Your task to perform on an android device: Open Google Chrome and open the bookmarks view Image 0: 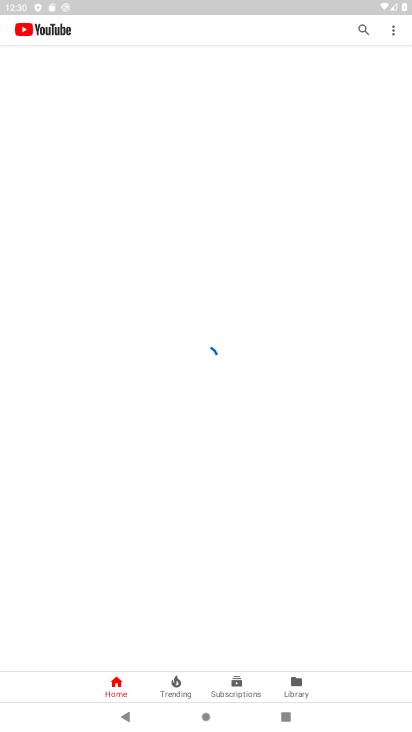
Step 0: drag from (335, 612) to (338, 193)
Your task to perform on an android device: Open Google Chrome and open the bookmarks view Image 1: 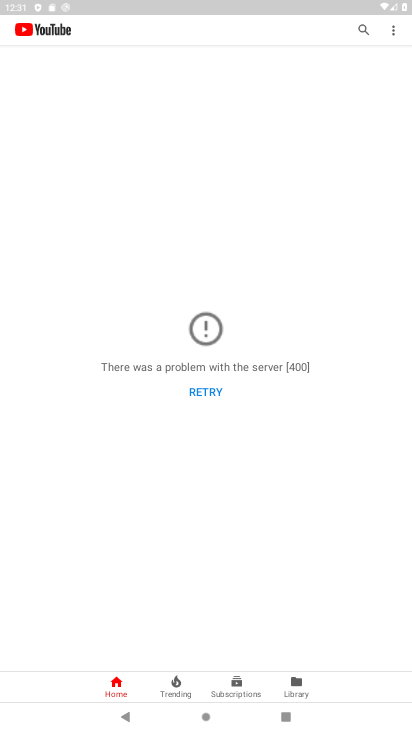
Step 1: press back button
Your task to perform on an android device: Open Google Chrome and open the bookmarks view Image 2: 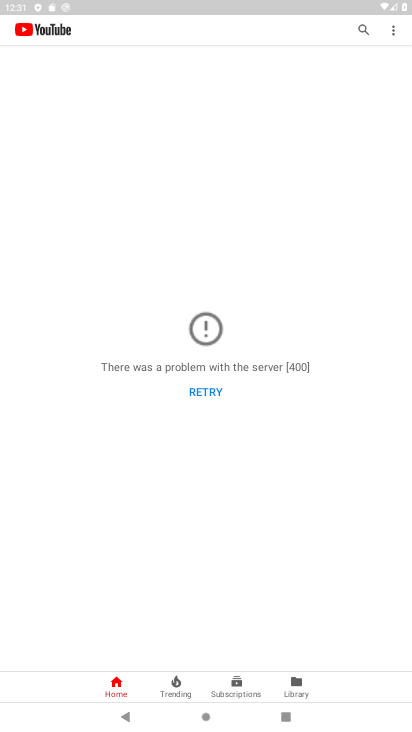
Step 2: press back button
Your task to perform on an android device: Open Google Chrome and open the bookmarks view Image 3: 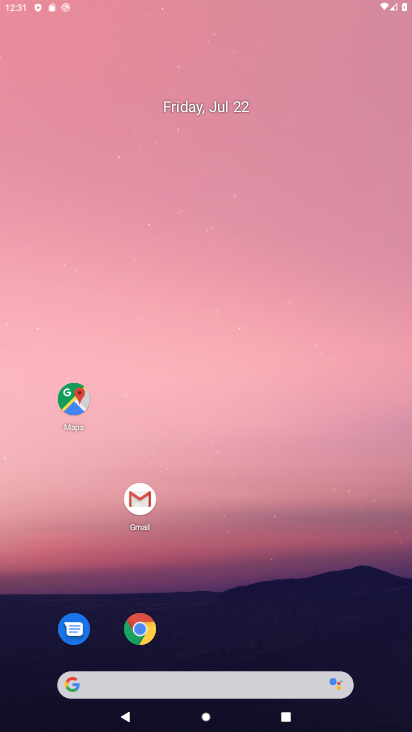
Step 3: press back button
Your task to perform on an android device: Open Google Chrome and open the bookmarks view Image 4: 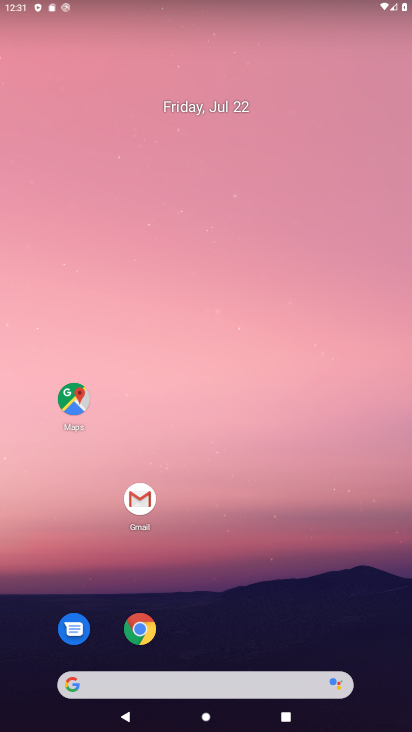
Step 4: drag from (259, 610) to (264, 0)
Your task to perform on an android device: Open Google Chrome and open the bookmarks view Image 5: 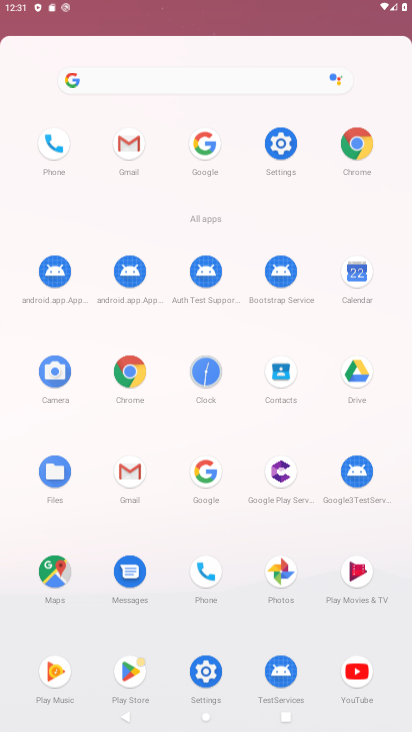
Step 5: drag from (228, 431) to (252, 0)
Your task to perform on an android device: Open Google Chrome and open the bookmarks view Image 6: 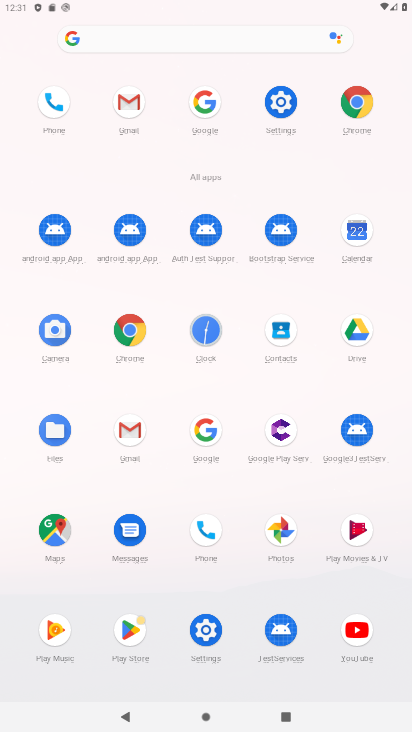
Step 6: click (349, 100)
Your task to perform on an android device: Open Google Chrome and open the bookmarks view Image 7: 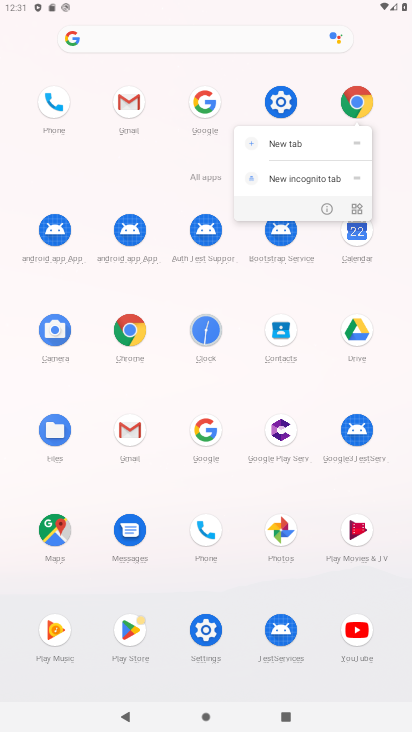
Step 7: click (349, 100)
Your task to perform on an android device: Open Google Chrome and open the bookmarks view Image 8: 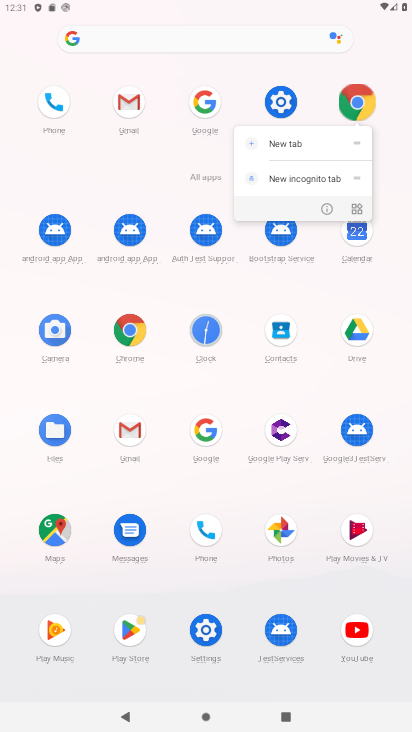
Step 8: click (353, 104)
Your task to perform on an android device: Open Google Chrome and open the bookmarks view Image 9: 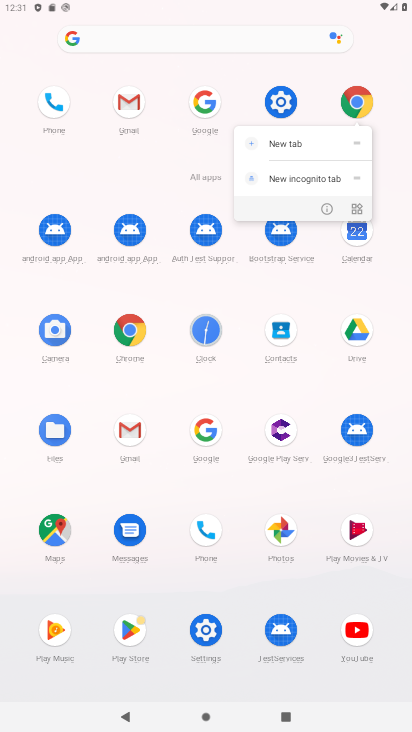
Step 9: click (355, 104)
Your task to perform on an android device: Open Google Chrome and open the bookmarks view Image 10: 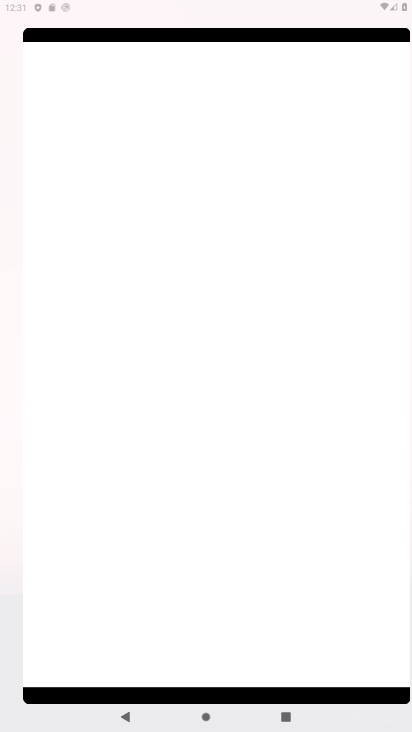
Step 10: click (355, 104)
Your task to perform on an android device: Open Google Chrome and open the bookmarks view Image 11: 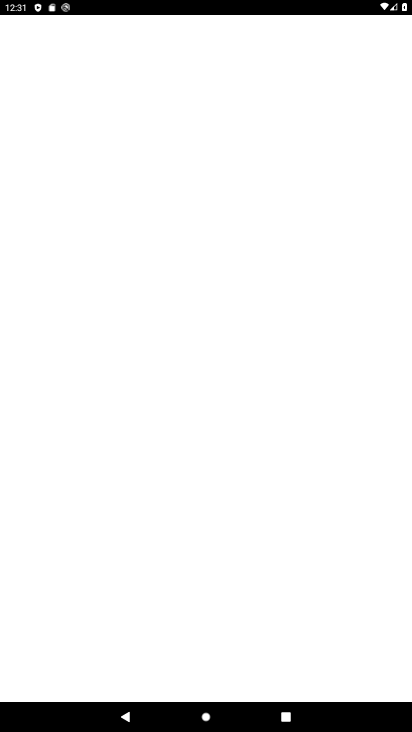
Step 11: click (358, 103)
Your task to perform on an android device: Open Google Chrome and open the bookmarks view Image 12: 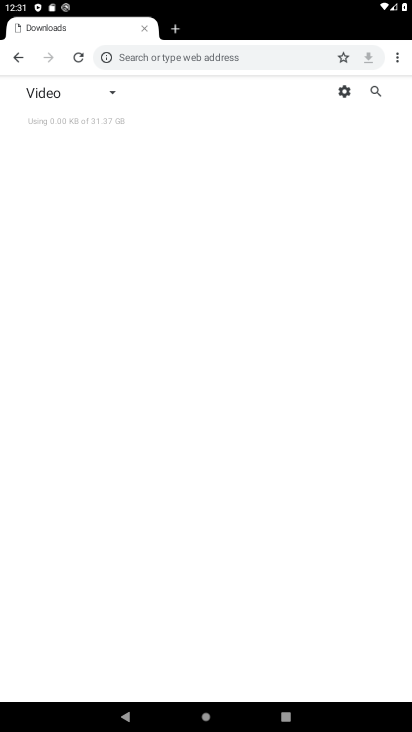
Step 12: click (396, 59)
Your task to perform on an android device: Open Google Chrome and open the bookmarks view Image 13: 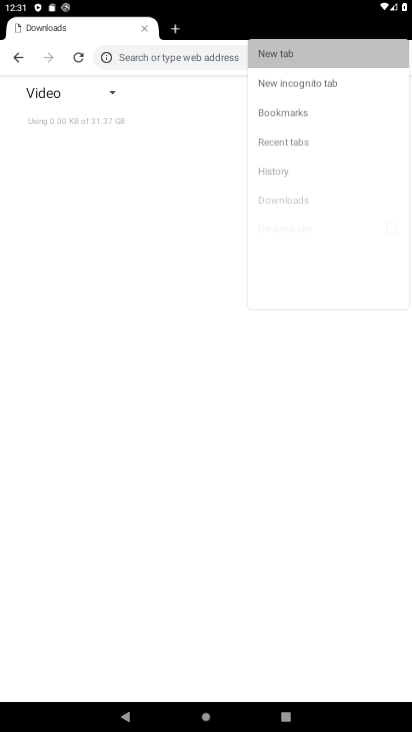
Step 13: drag from (395, 58) to (282, 119)
Your task to perform on an android device: Open Google Chrome and open the bookmarks view Image 14: 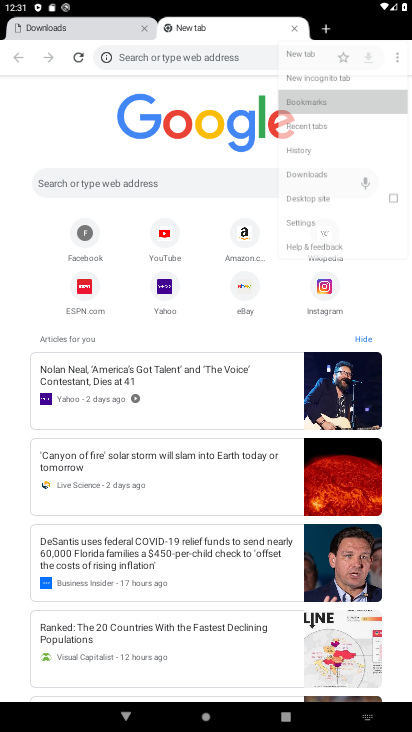
Step 14: click (282, 119)
Your task to perform on an android device: Open Google Chrome and open the bookmarks view Image 15: 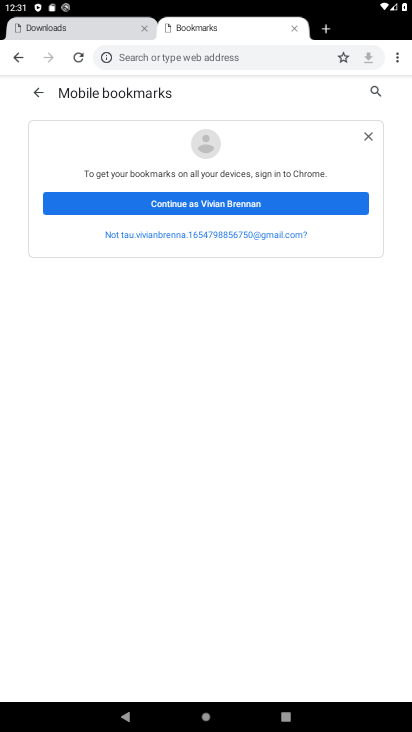
Step 15: click (367, 128)
Your task to perform on an android device: Open Google Chrome and open the bookmarks view Image 16: 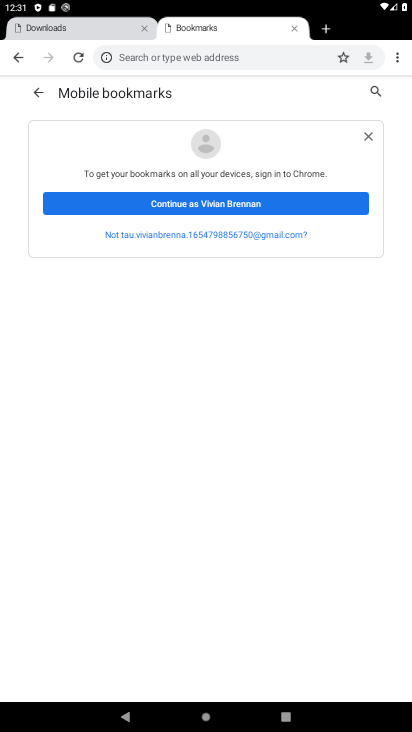
Step 16: click (366, 134)
Your task to perform on an android device: Open Google Chrome and open the bookmarks view Image 17: 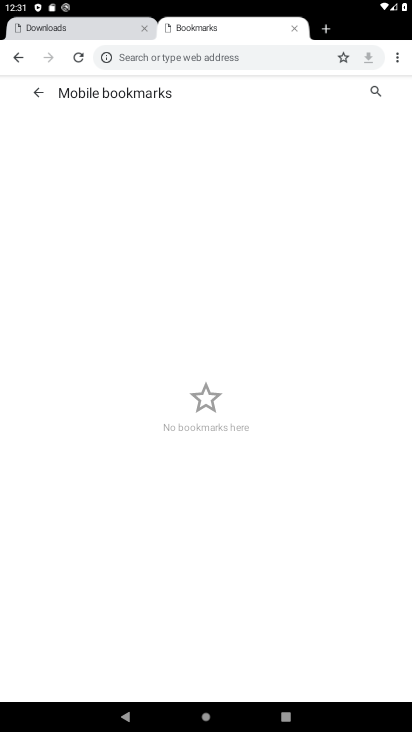
Step 17: task complete